Your task to perform on an android device: check android version Image 0: 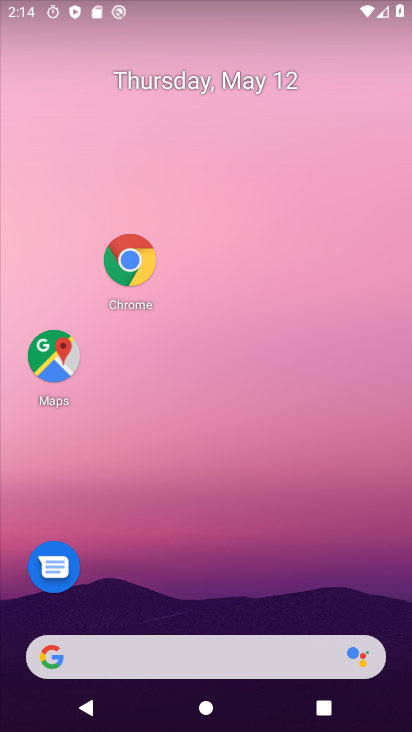
Step 0: drag from (175, 638) to (221, 216)
Your task to perform on an android device: check android version Image 1: 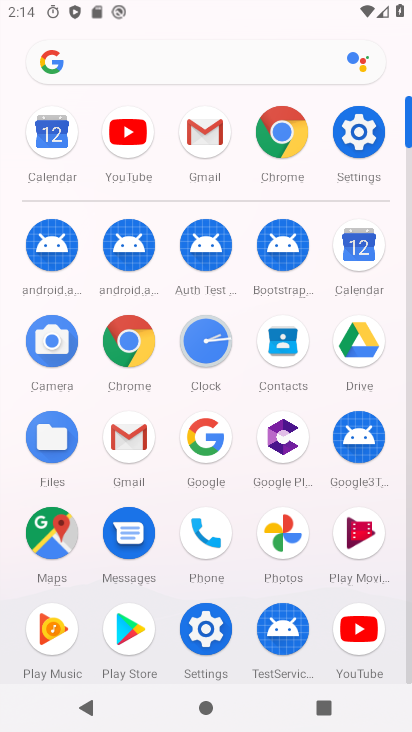
Step 1: click (365, 136)
Your task to perform on an android device: check android version Image 2: 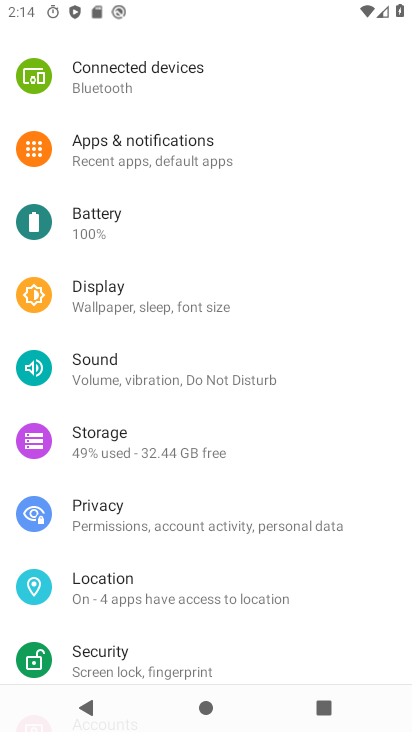
Step 2: task complete